Your task to perform on an android device: turn on javascript in the chrome app Image 0: 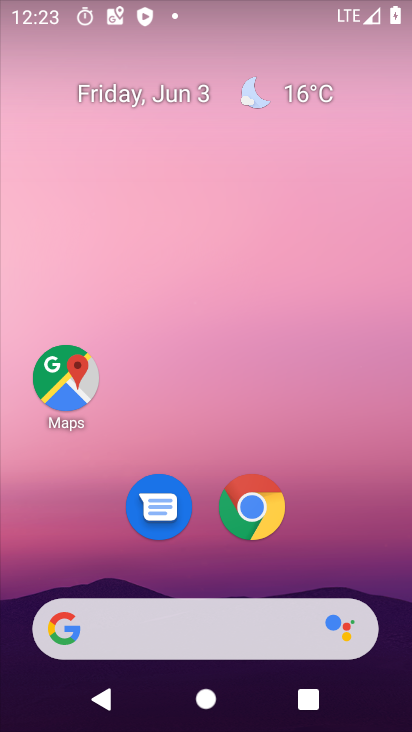
Step 0: drag from (390, 609) to (216, 61)
Your task to perform on an android device: turn on javascript in the chrome app Image 1: 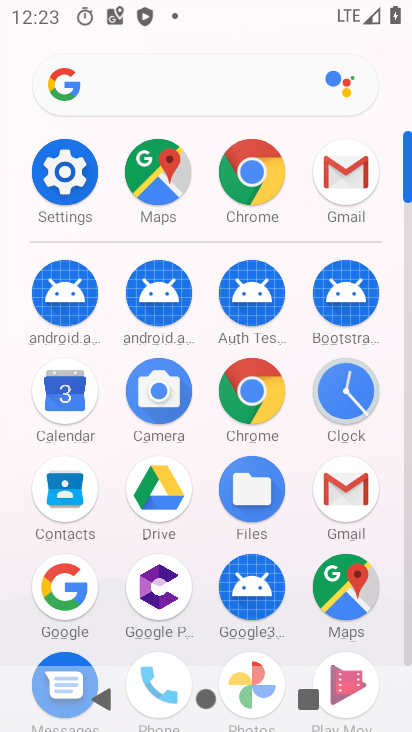
Step 1: click (247, 411)
Your task to perform on an android device: turn on javascript in the chrome app Image 2: 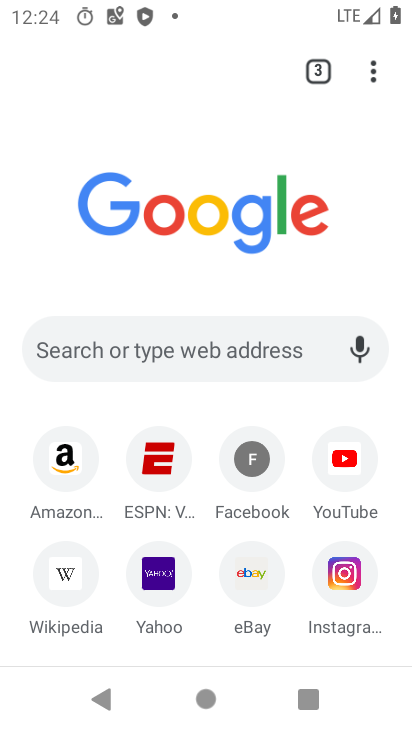
Step 2: click (372, 77)
Your task to perform on an android device: turn on javascript in the chrome app Image 3: 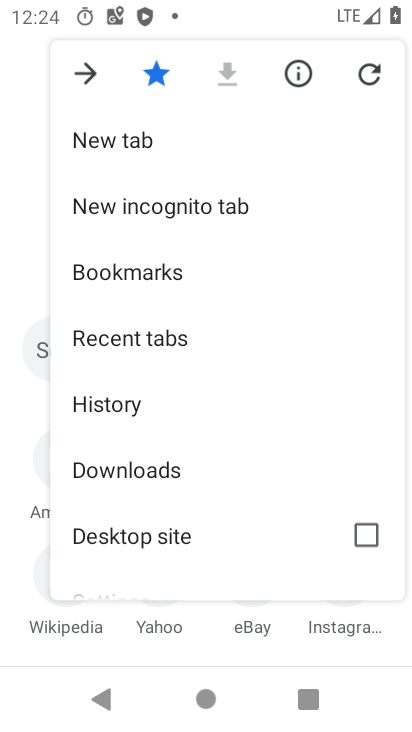
Step 3: drag from (161, 545) to (225, 124)
Your task to perform on an android device: turn on javascript in the chrome app Image 4: 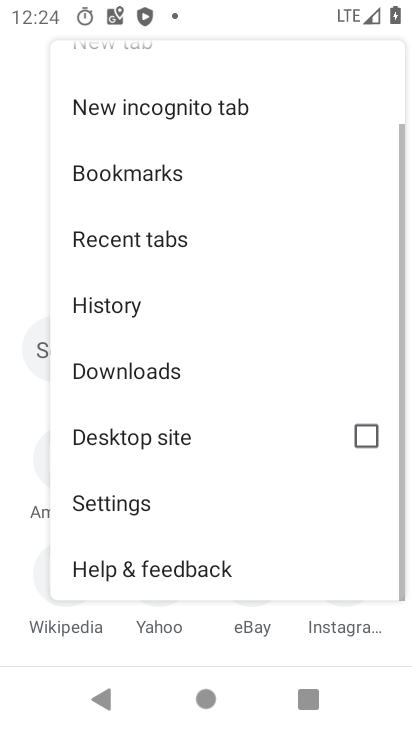
Step 4: click (104, 493)
Your task to perform on an android device: turn on javascript in the chrome app Image 5: 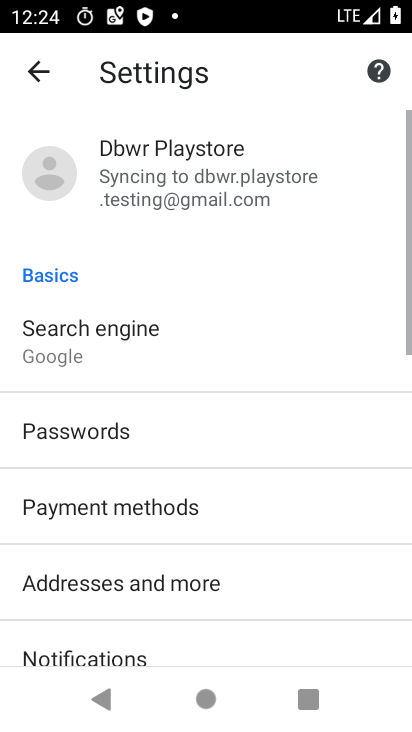
Step 5: drag from (178, 604) to (221, 152)
Your task to perform on an android device: turn on javascript in the chrome app Image 6: 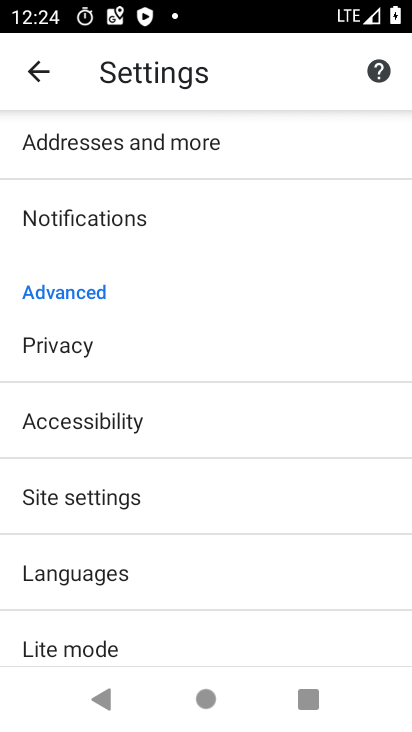
Step 6: click (134, 493)
Your task to perform on an android device: turn on javascript in the chrome app Image 7: 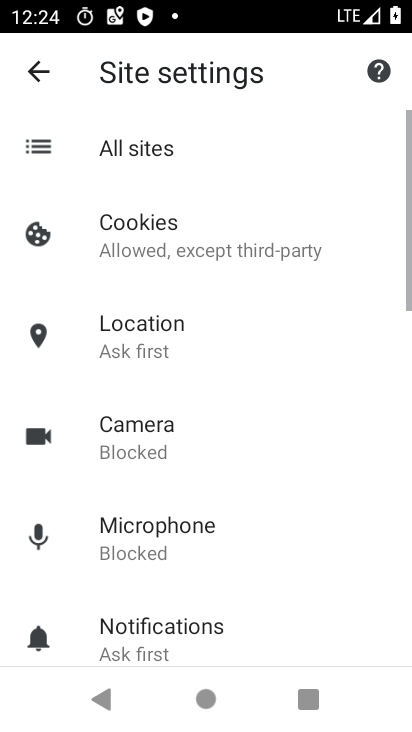
Step 7: drag from (202, 616) to (215, 144)
Your task to perform on an android device: turn on javascript in the chrome app Image 8: 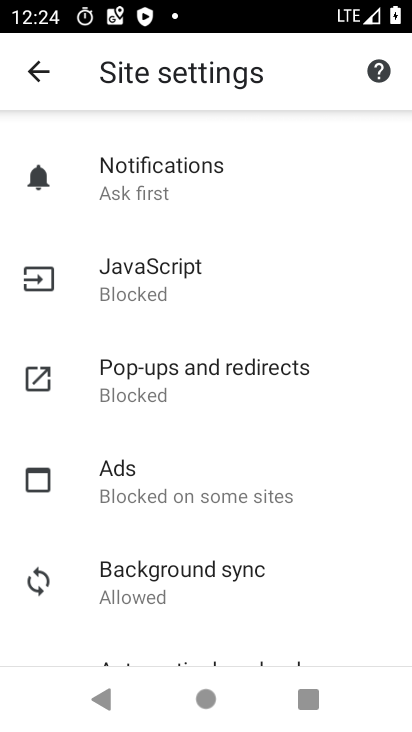
Step 8: click (180, 289)
Your task to perform on an android device: turn on javascript in the chrome app Image 9: 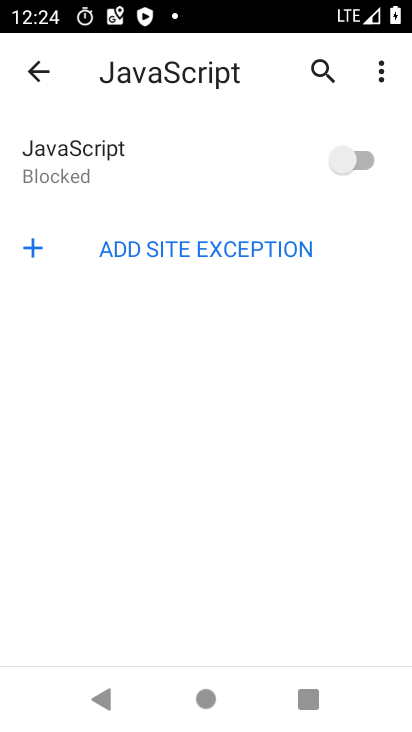
Step 9: click (370, 156)
Your task to perform on an android device: turn on javascript in the chrome app Image 10: 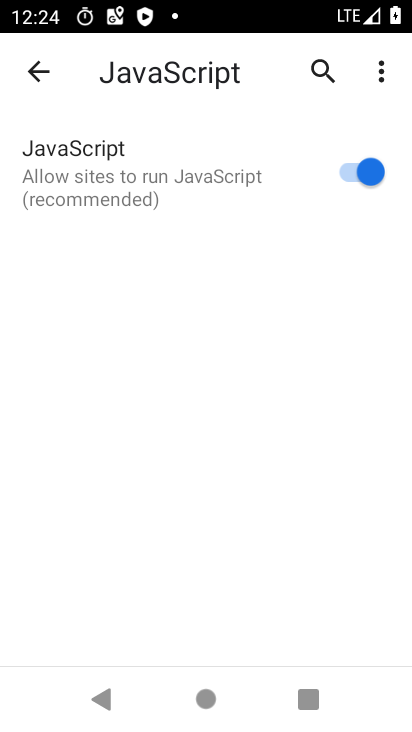
Step 10: task complete